Your task to perform on an android device: make emails show in primary in the gmail app Image 0: 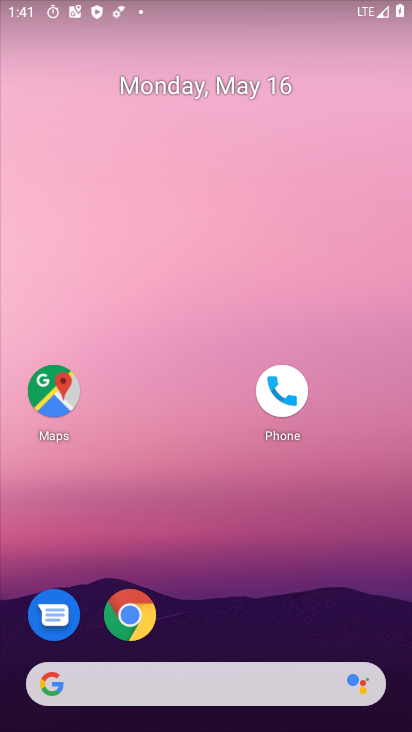
Step 0: drag from (372, 668) to (409, 65)
Your task to perform on an android device: make emails show in primary in the gmail app Image 1: 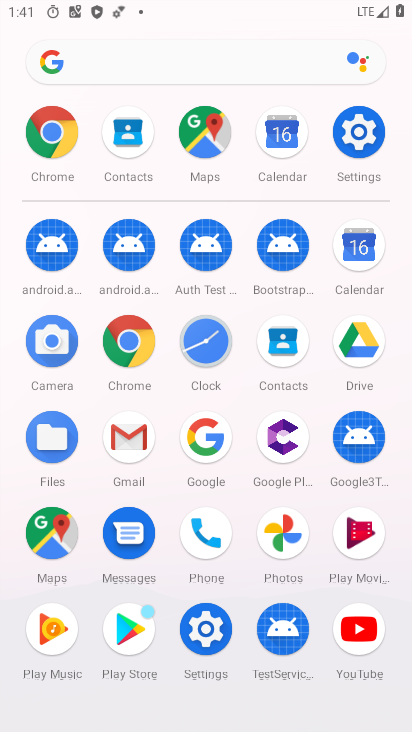
Step 1: click (107, 431)
Your task to perform on an android device: make emails show in primary in the gmail app Image 2: 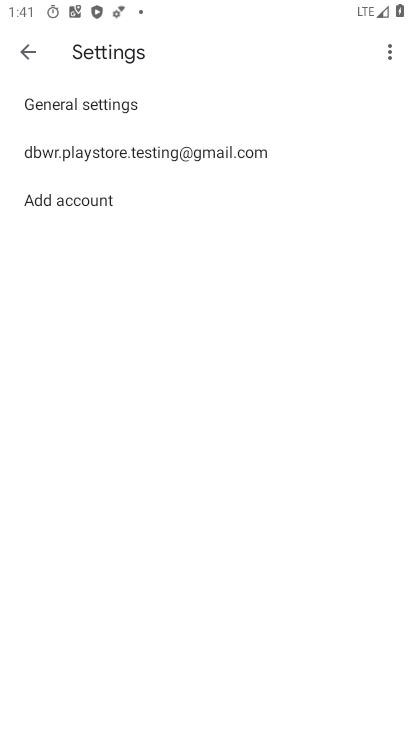
Step 2: click (43, 164)
Your task to perform on an android device: make emails show in primary in the gmail app Image 3: 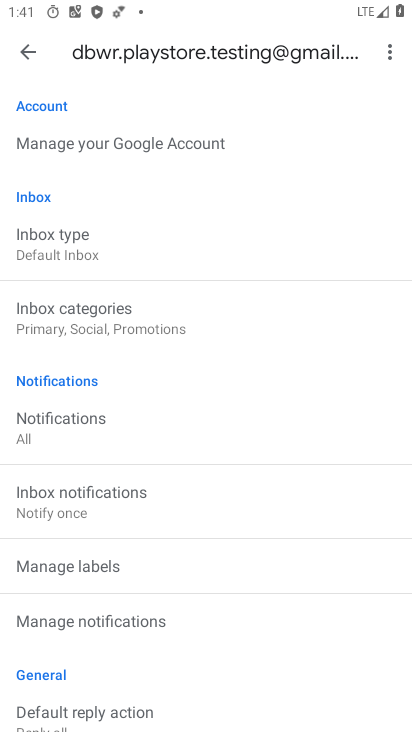
Step 3: press back button
Your task to perform on an android device: make emails show in primary in the gmail app Image 4: 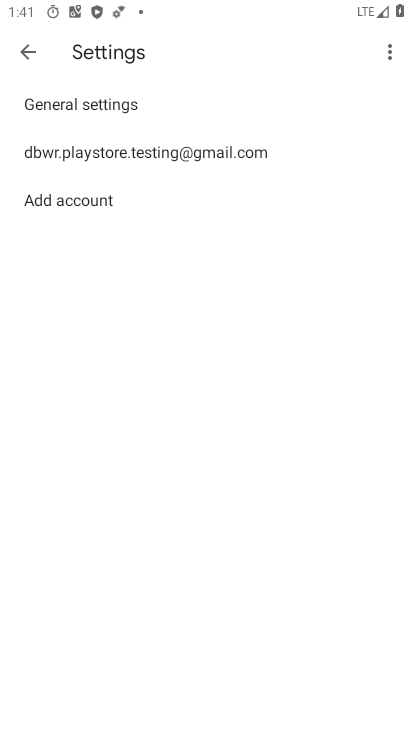
Step 4: press back button
Your task to perform on an android device: make emails show in primary in the gmail app Image 5: 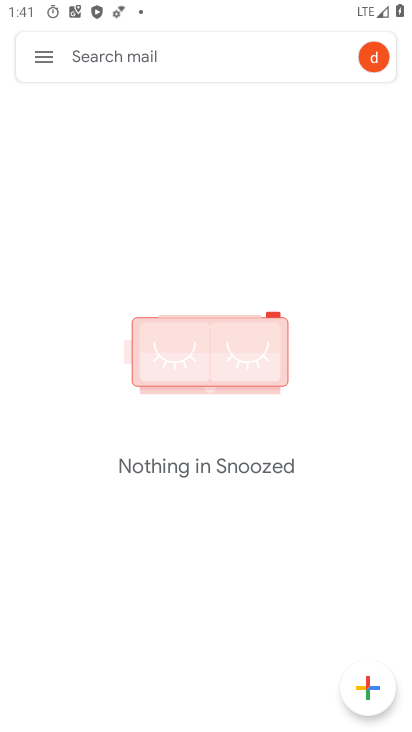
Step 5: click (40, 49)
Your task to perform on an android device: make emails show in primary in the gmail app Image 6: 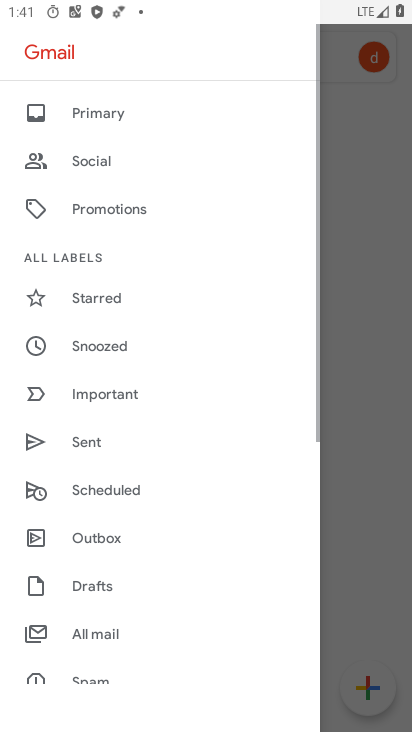
Step 6: click (124, 110)
Your task to perform on an android device: make emails show in primary in the gmail app Image 7: 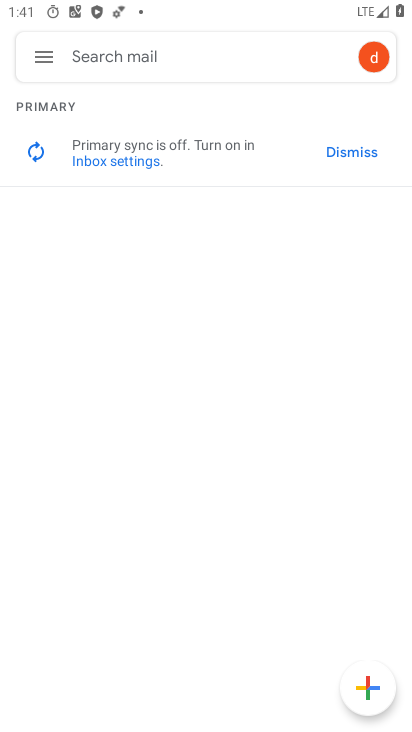
Step 7: task complete